Your task to perform on an android device: uninstall "Google Play Games" Image 0: 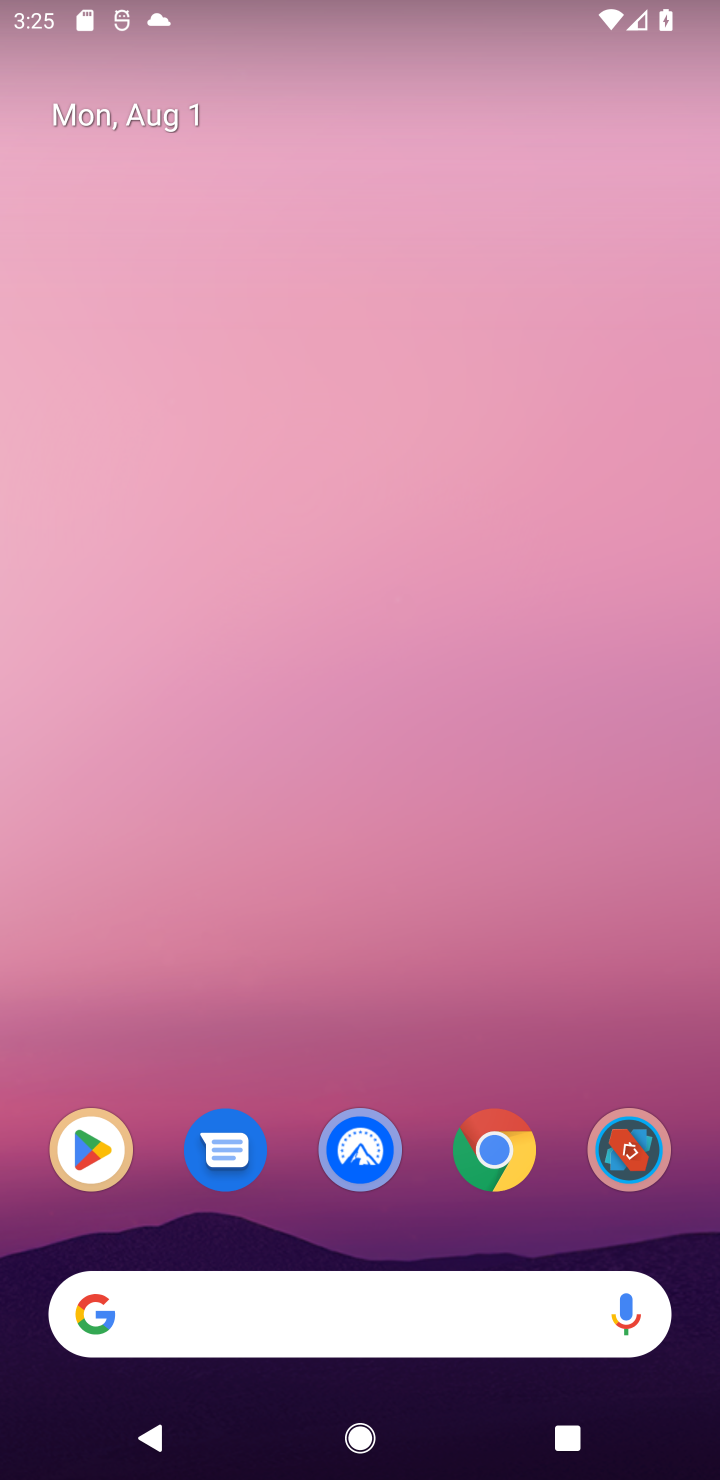
Step 0: drag from (458, 1245) to (551, 248)
Your task to perform on an android device: uninstall "Google Play Games" Image 1: 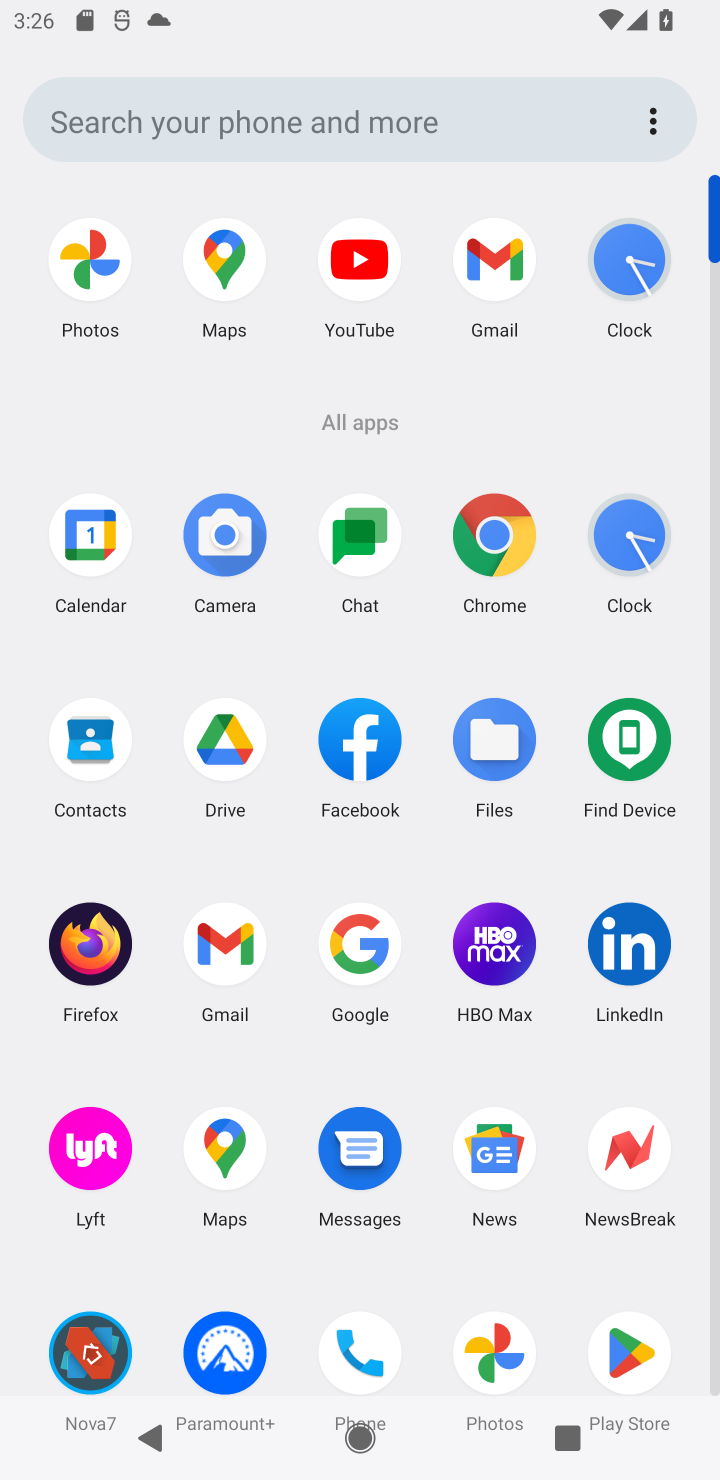
Step 1: click (711, 1149)
Your task to perform on an android device: uninstall "Google Play Games" Image 2: 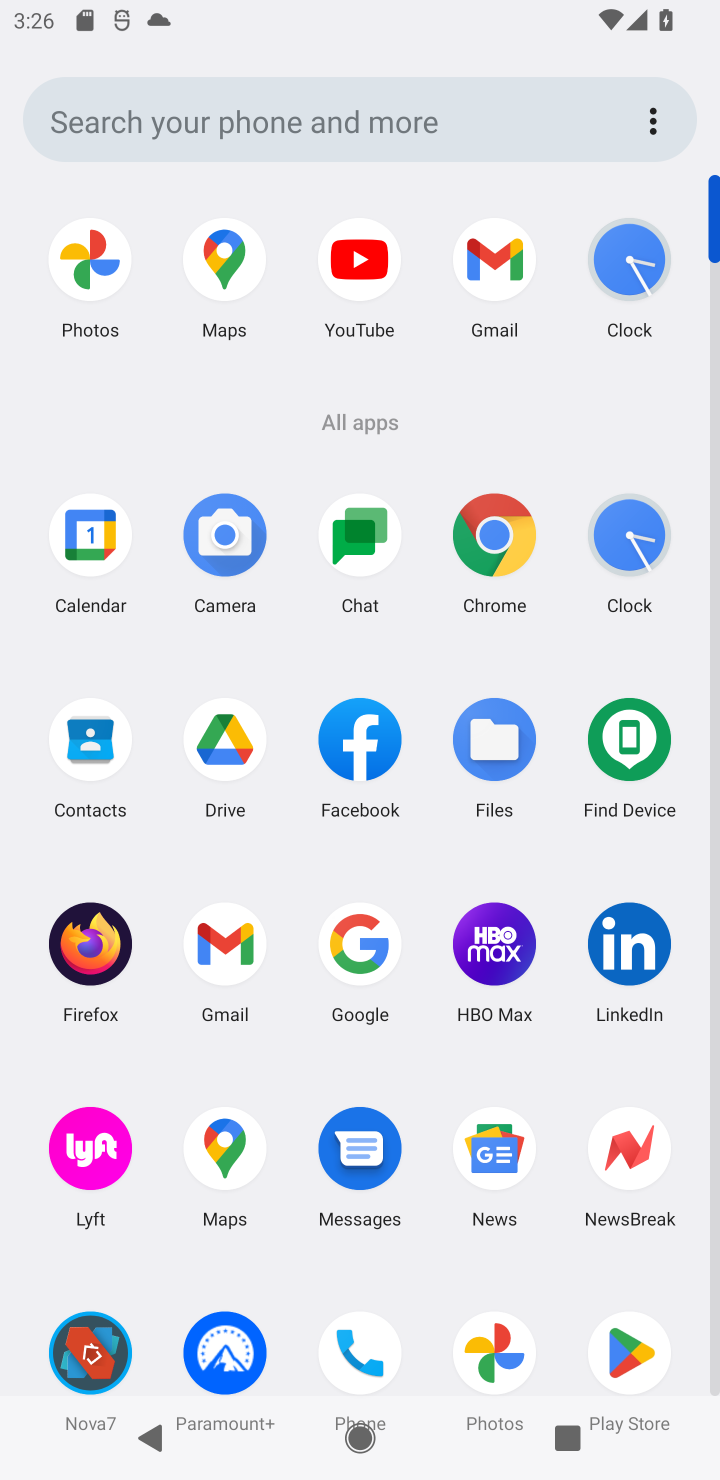
Step 2: click (716, 1154)
Your task to perform on an android device: uninstall "Google Play Games" Image 3: 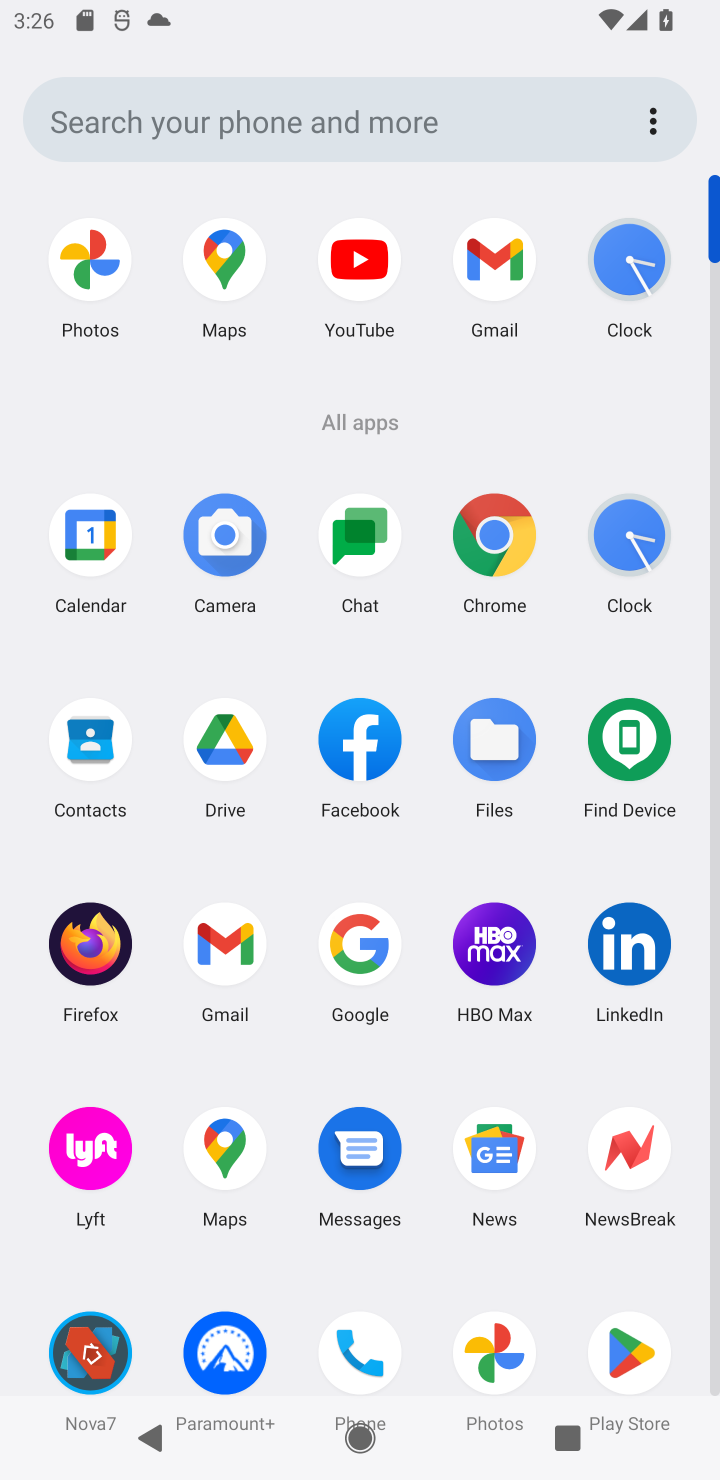
Step 3: click (716, 1154)
Your task to perform on an android device: uninstall "Google Play Games" Image 4: 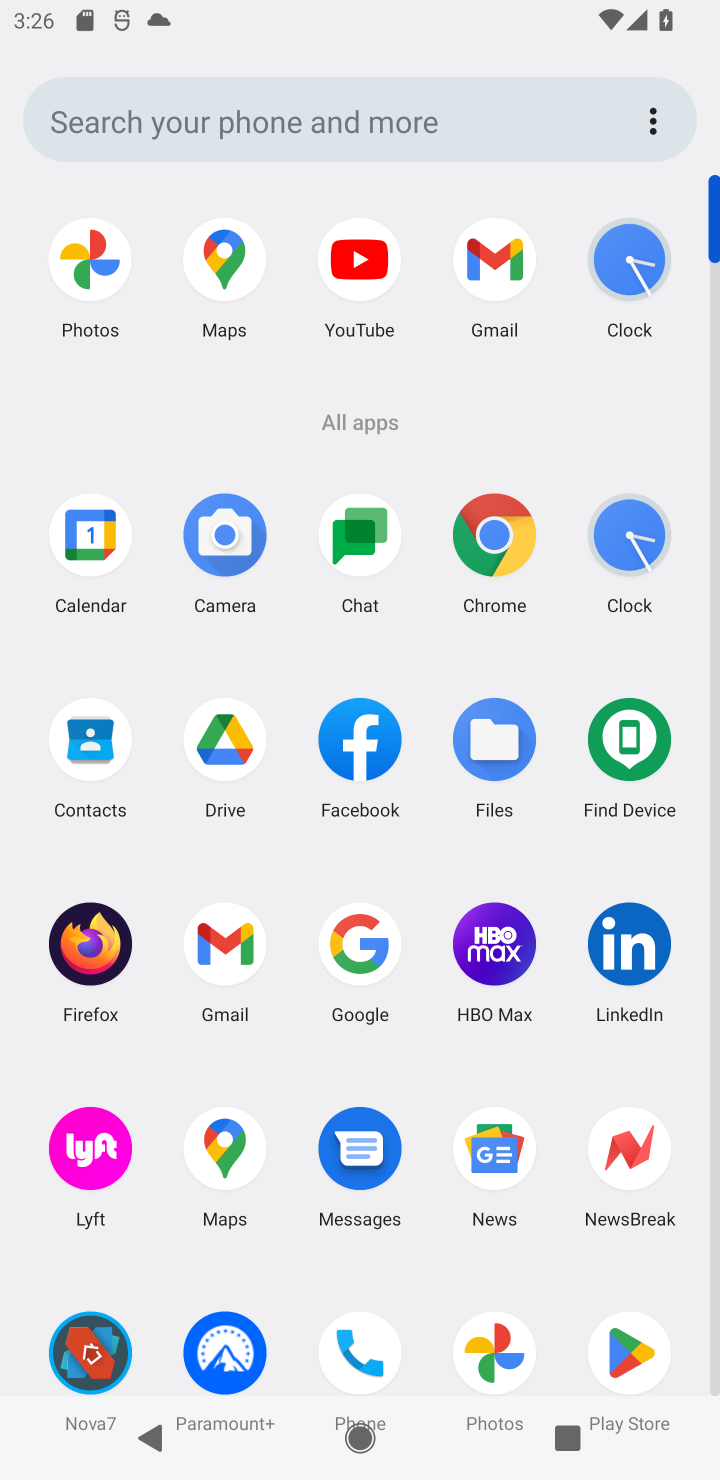
Step 4: click (337, 139)
Your task to perform on an android device: uninstall "Google Play Games" Image 5: 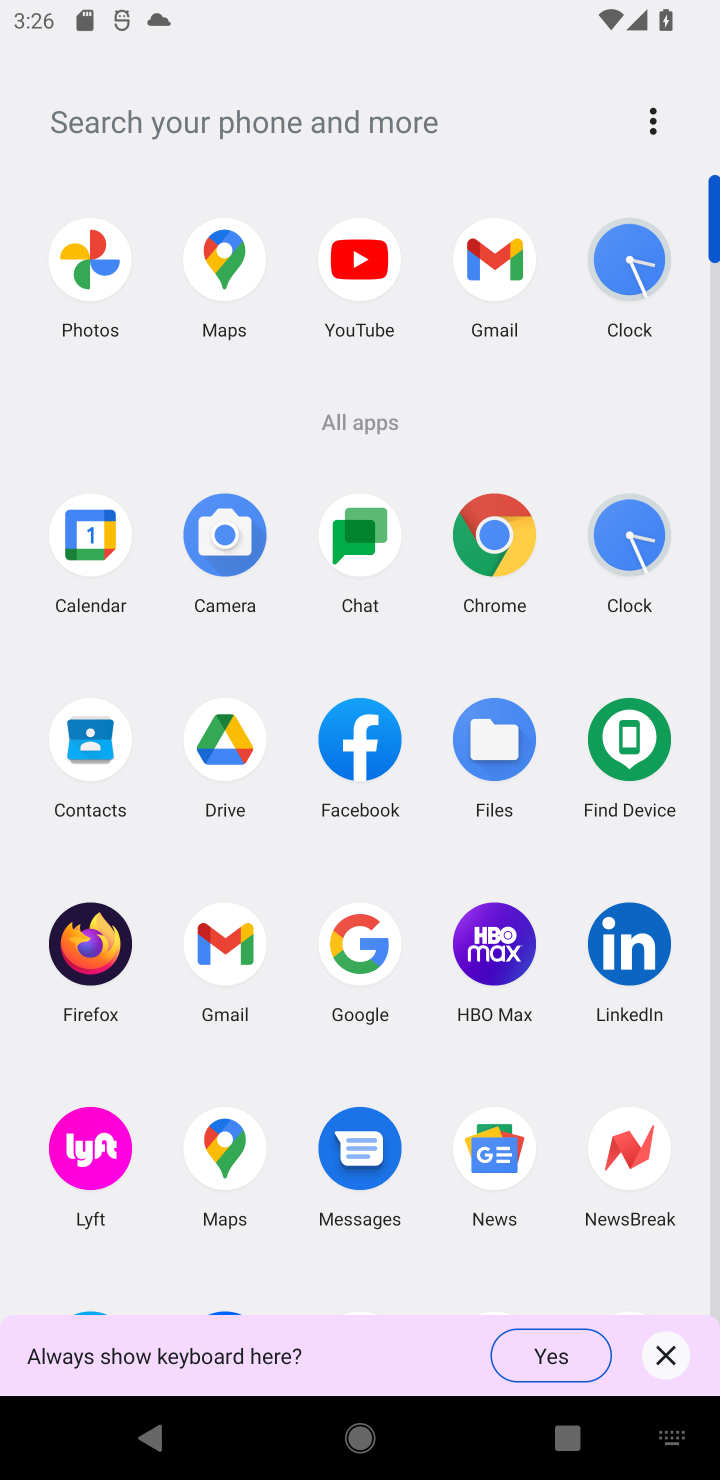
Step 5: click (337, 139)
Your task to perform on an android device: uninstall "Google Play Games" Image 6: 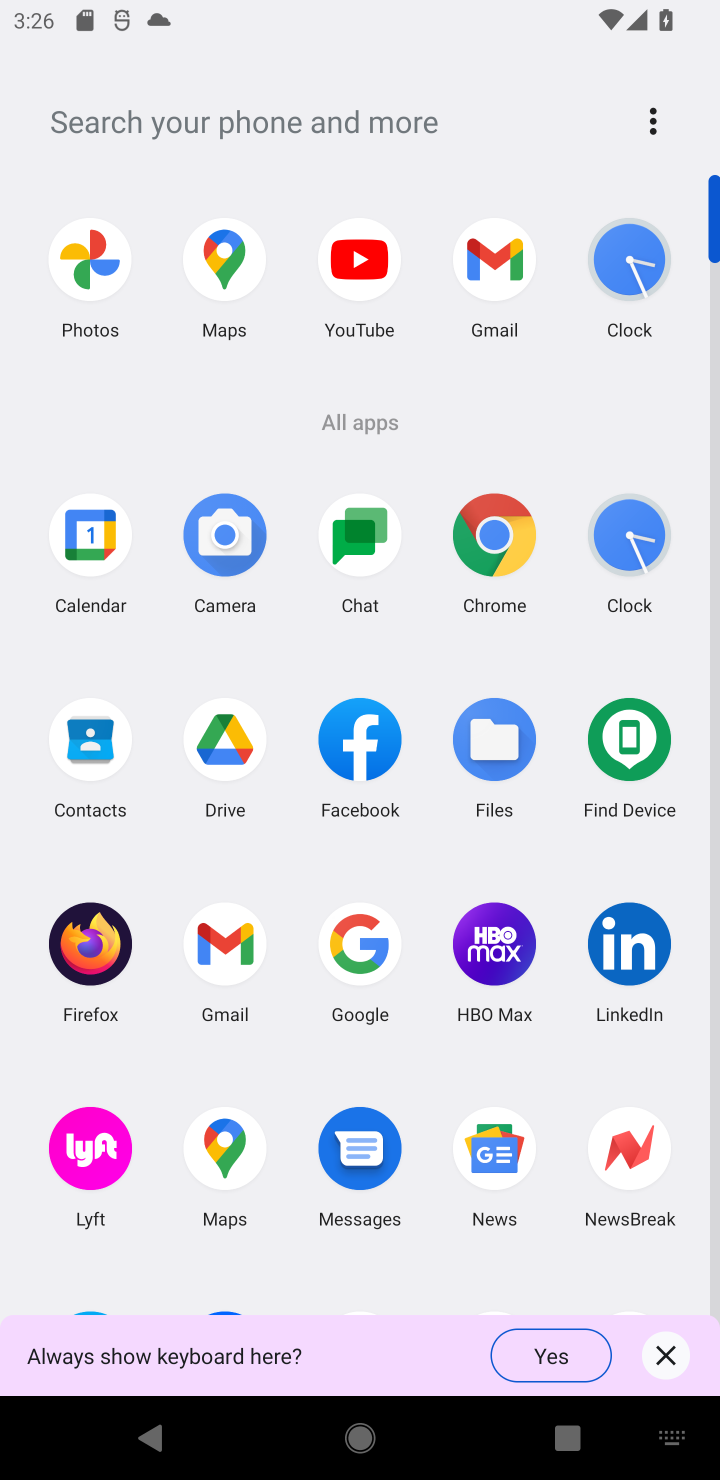
Step 6: click (337, 139)
Your task to perform on an android device: uninstall "Google Play Games" Image 7: 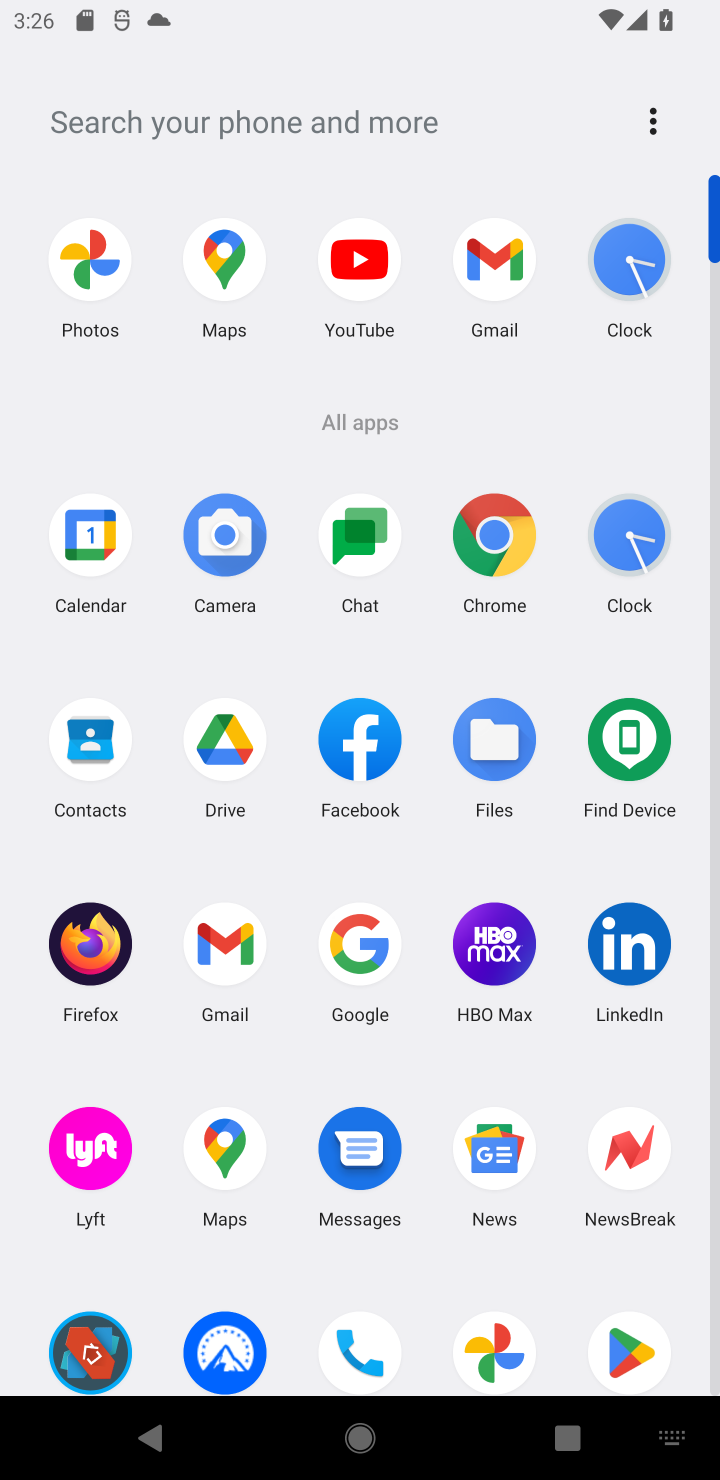
Step 7: type "google pay game"
Your task to perform on an android device: uninstall "Google Play Games" Image 8: 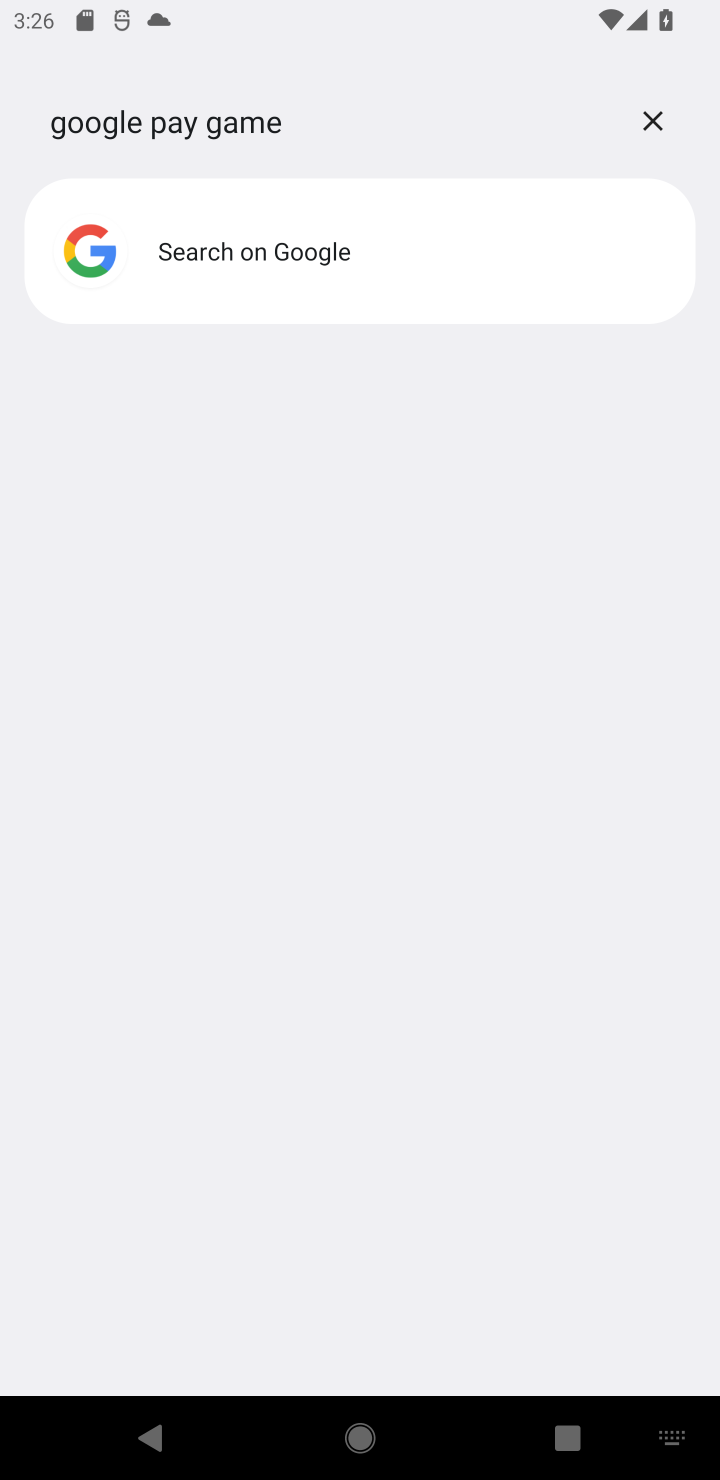
Step 8: task complete